Your task to perform on an android device: See recent photos Image 0: 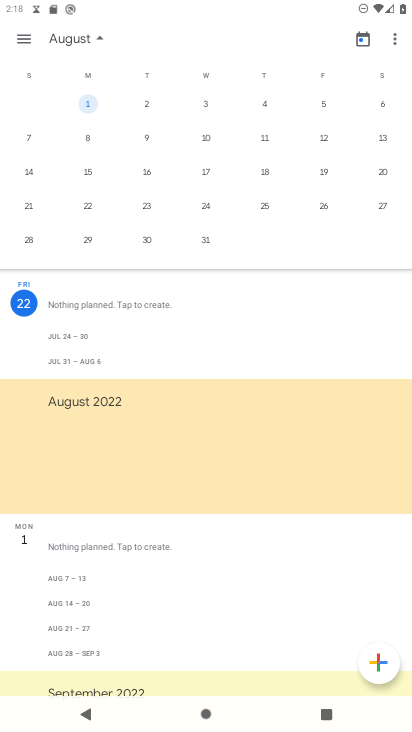
Step 0: press home button
Your task to perform on an android device: See recent photos Image 1: 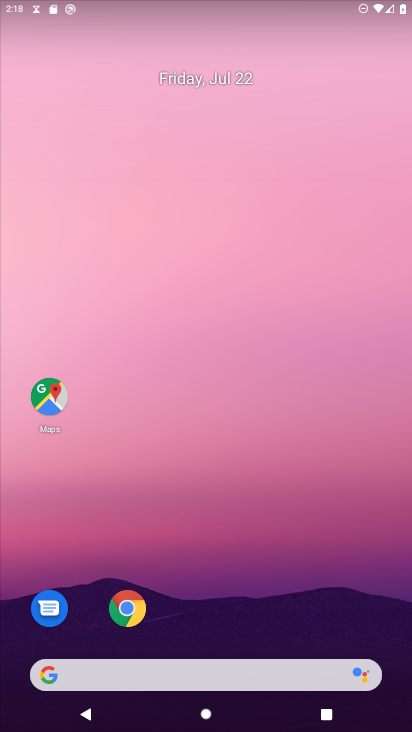
Step 1: drag from (277, 599) to (277, 121)
Your task to perform on an android device: See recent photos Image 2: 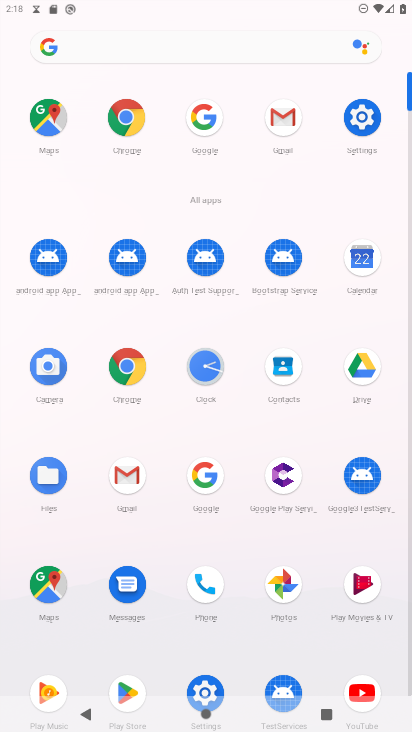
Step 2: click (282, 582)
Your task to perform on an android device: See recent photos Image 3: 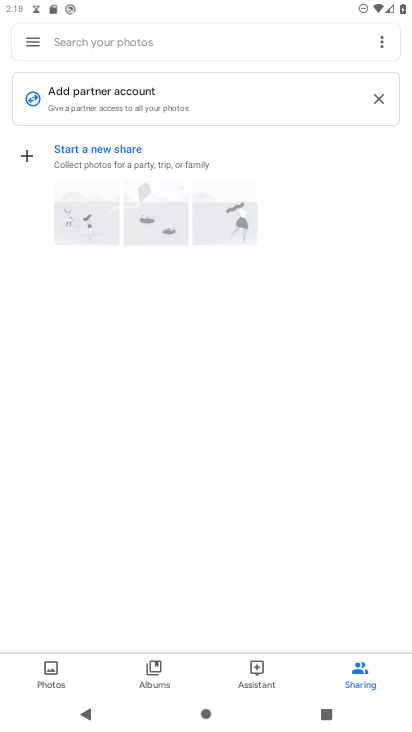
Step 3: click (37, 665)
Your task to perform on an android device: See recent photos Image 4: 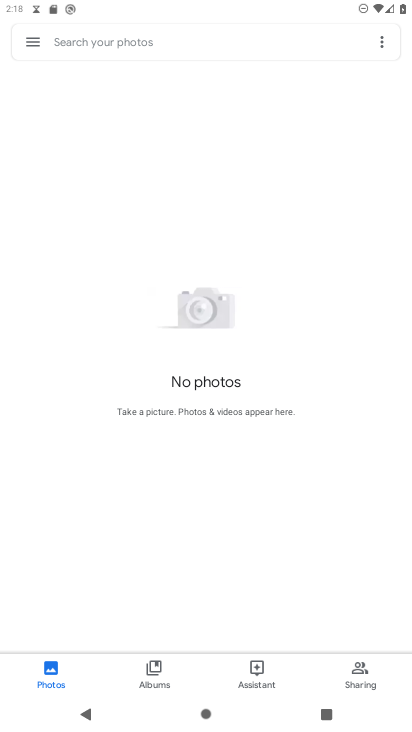
Step 4: task complete